Your task to perform on an android device: Go to Amazon Image 0: 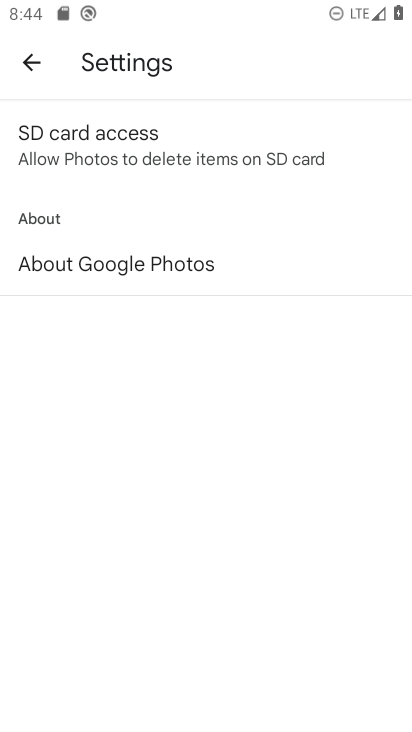
Step 0: press home button
Your task to perform on an android device: Go to Amazon Image 1: 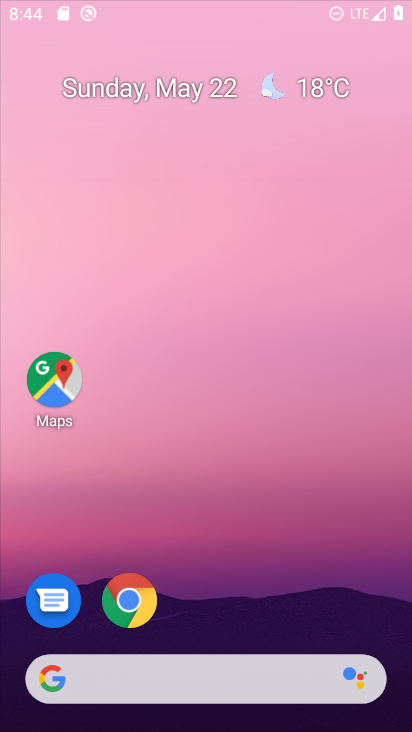
Step 1: drag from (369, 621) to (331, 77)
Your task to perform on an android device: Go to Amazon Image 2: 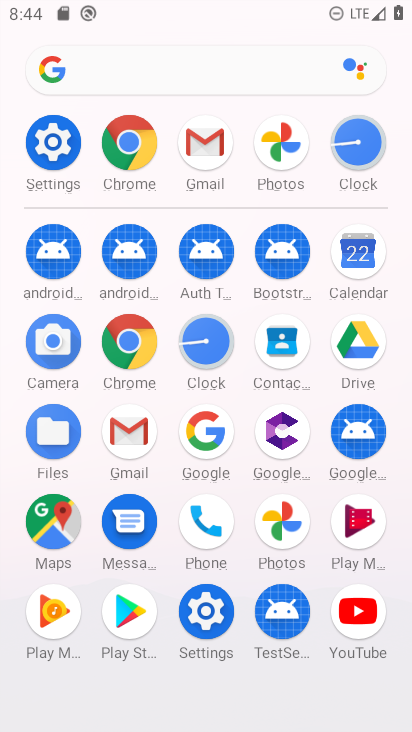
Step 2: click (205, 437)
Your task to perform on an android device: Go to Amazon Image 3: 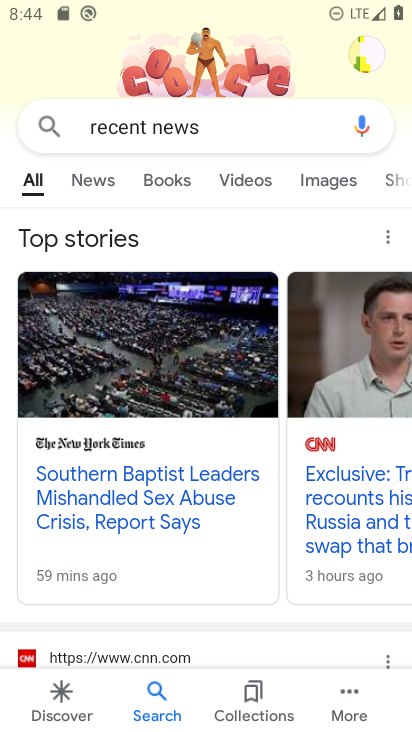
Step 3: press back button
Your task to perform on an android device: Go to Amazon Image 4: 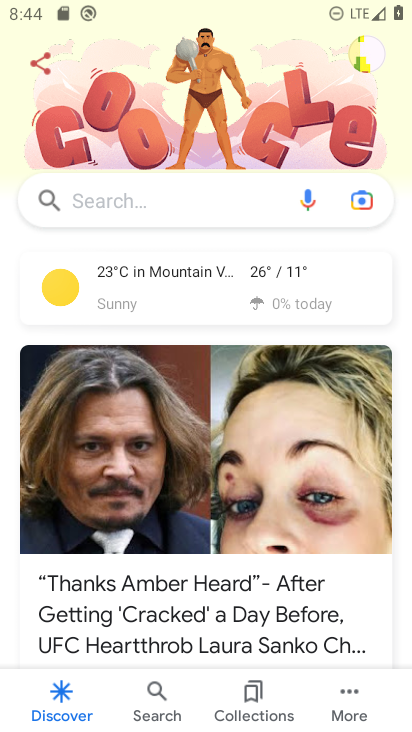
Step 4: click (191, 181)
Your task to perform on an android device: Go to Amazon Image 5: 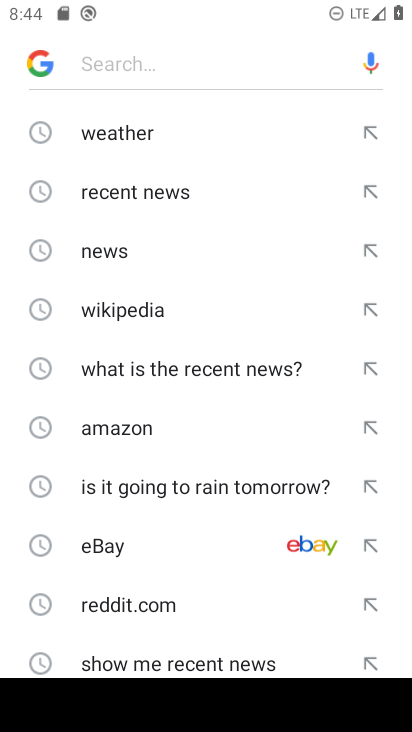
Step 5: drag from (140, 590) to (204, 228)
Your task to perform on an android device: Go to Amazon Image 6: 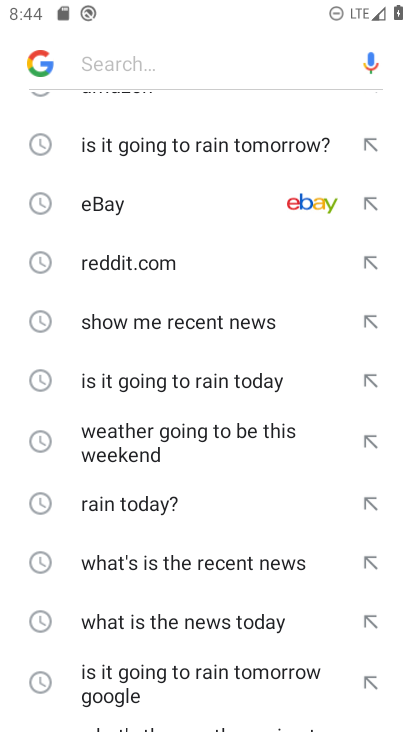
Step 6: drag from (171, 257) to (188, 616)
Your task to perform on an android device: Go to Amazon Image 7: 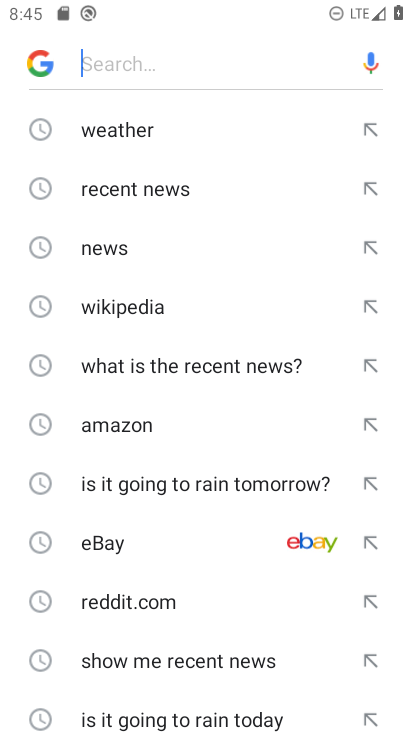
Step 7: click (151, 414)
Your task to perform on an android device: Go to Amazon Image 8: 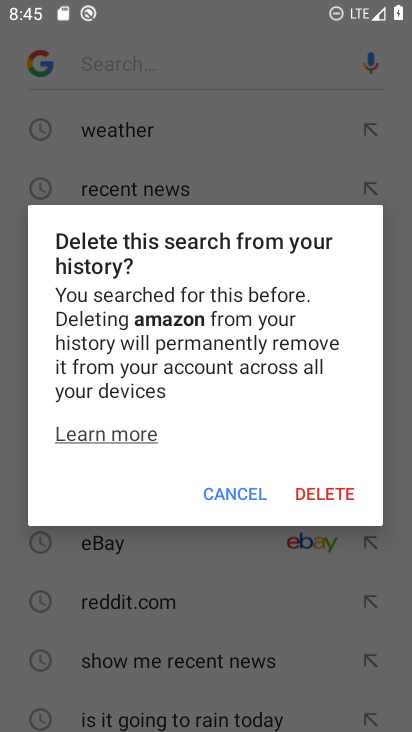
Step 8: click (250, 490)
Your task to perform on an android device: Go to Amazon Image 9: 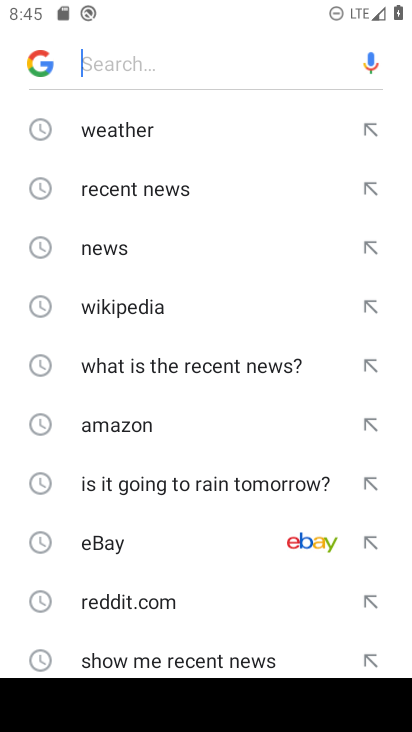
Step 9: click (154, 430)
Your task to perform on an android device: Go to Amazon Image 10: 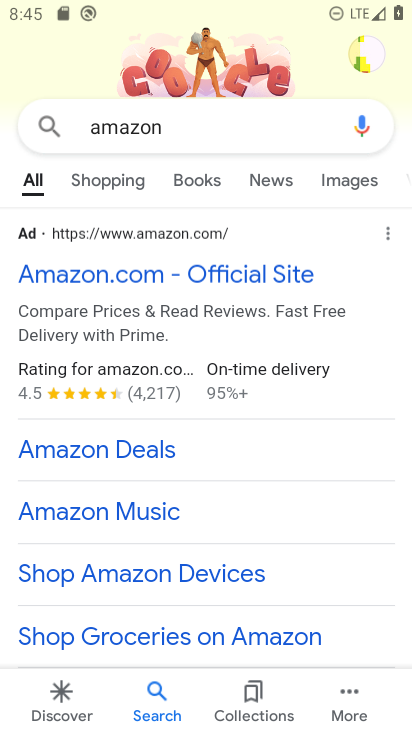
Step 10: task complete